Your task to perform on an android device: turn smart compose on in the gmail app Image 0: 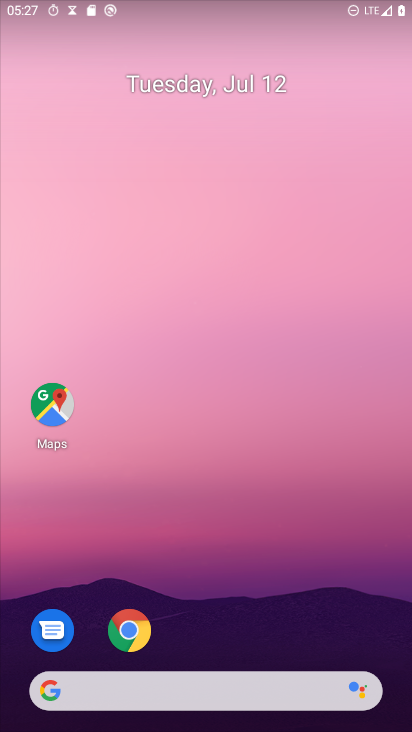
Step 0: drag from (192, 718) to (297, 3)
Your task to perform on an android device: turn smart compose on in the gmail app Image 1: 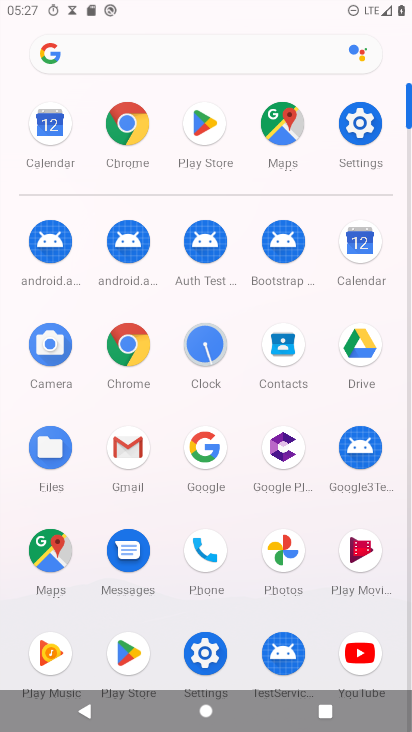
Step 1: click (114, 451)
Your task to perform on an android device: turn smart compose on in the gmail app Image 2: 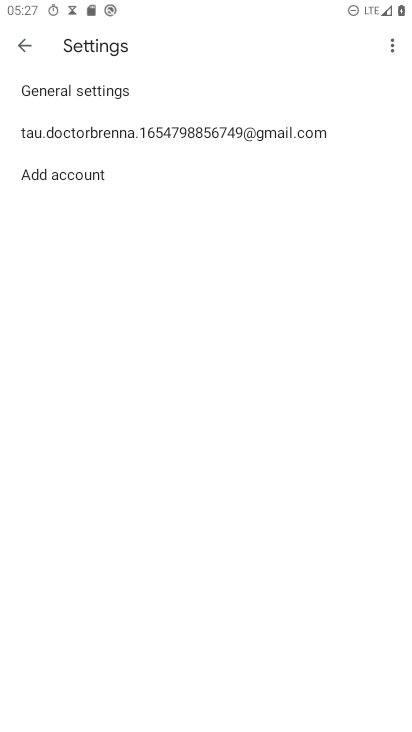
Step 2: press back button
Your task to perform on an android device: turn smart compose on in the gmail app Image 3: 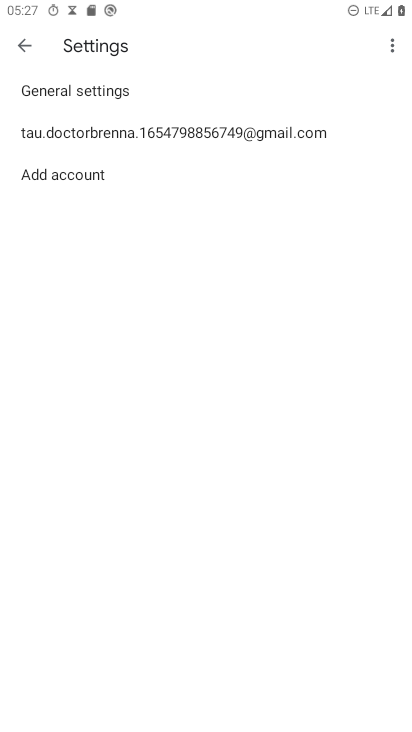
Step 3: click (246, 129)
Your task to perform on an android device: turn smart compose on in the gmail app Image 4: 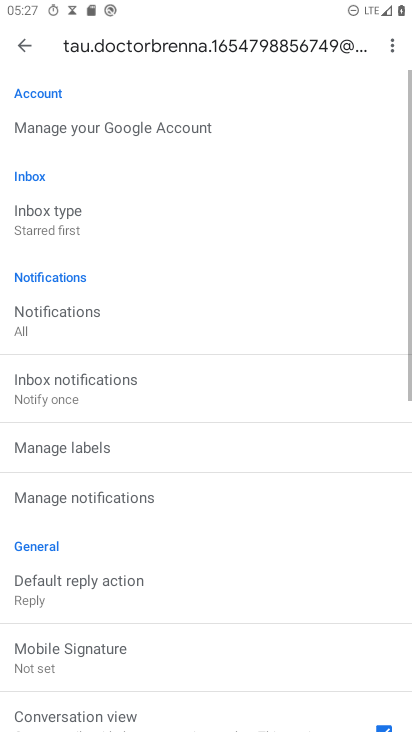
Step 4: task complete